Your task to perform on an android device: See recent photos Image 0: 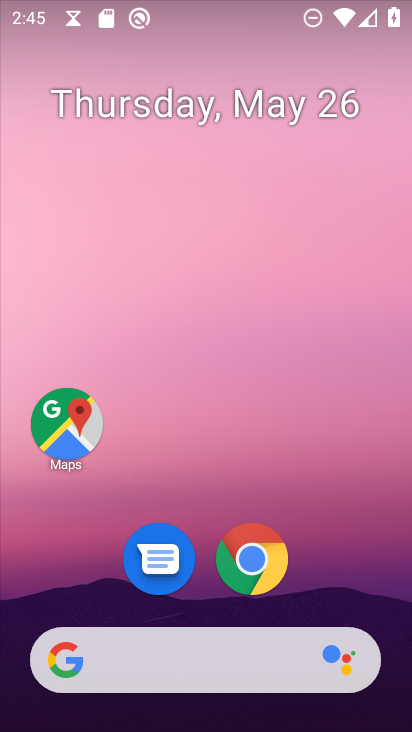
Step 0: drag from (163, 672) to (347, 108)
Your task to perform on an android device: See recent photos Image 1: 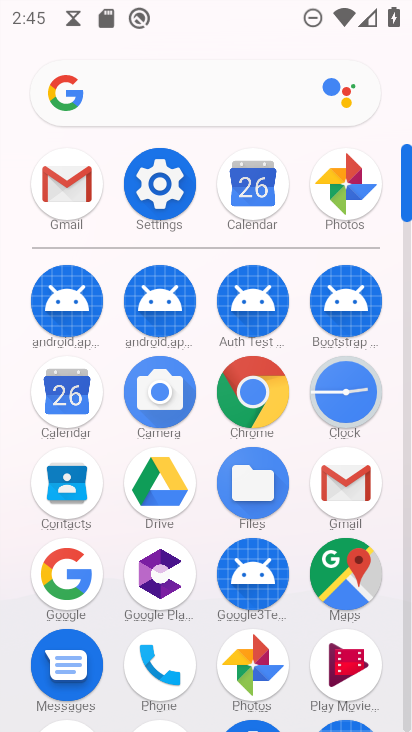
Step 1: click (270, 667)
Your task to perform on an android device: See recent photos Image 2: 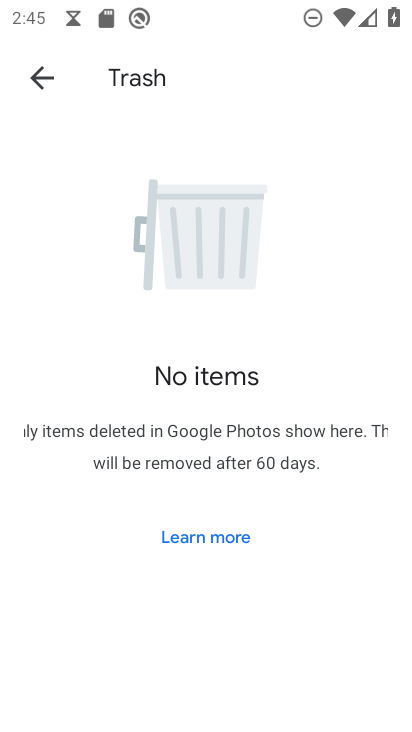
Step 2: click (35, 77)
Your task to perform on an android device: See recent photos Image 3: 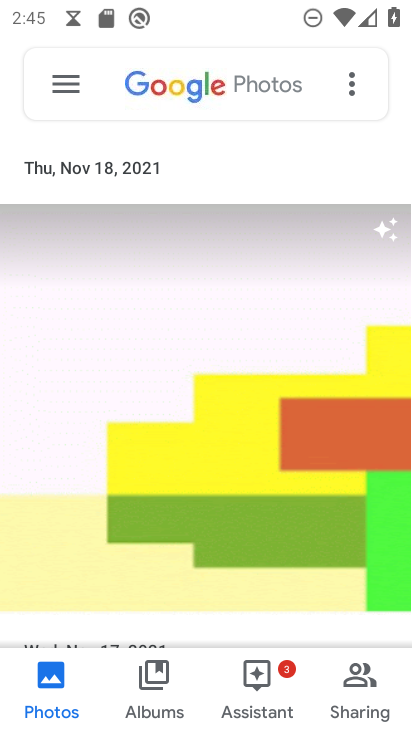
Step 3: click (170, 716)
Your task to perform on an android device: See recent photos Image 4: 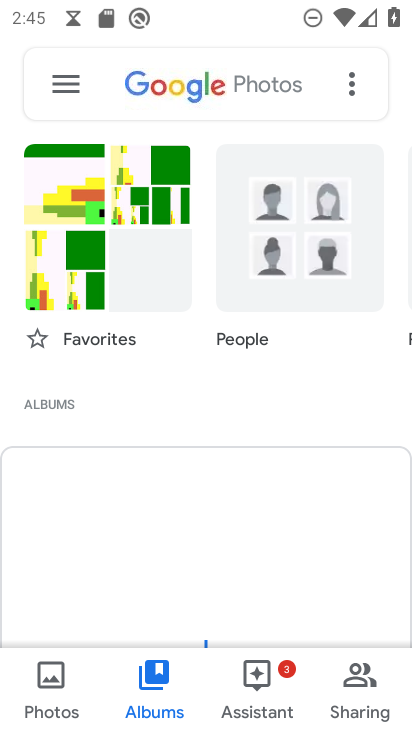
Step 4: task complete